Your task to perform on an android device: Set the phone to "Do not disturb". Image 0: 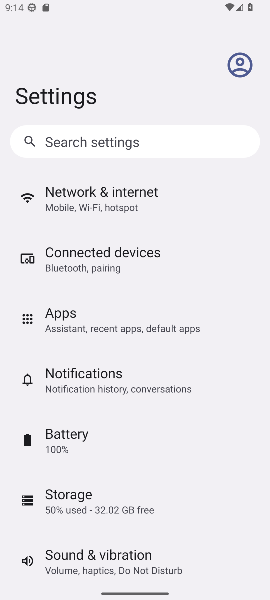
Step 0: press home button
Your task to perform on an android device: Set the phone to "Do not disturb". Image 1: 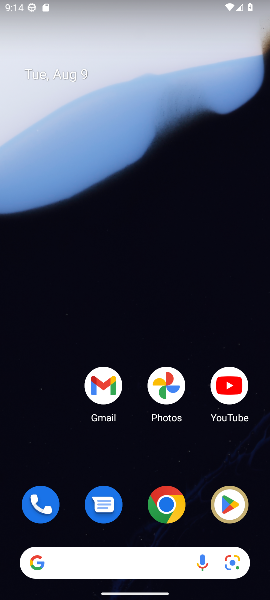
Step 1: drag from (133, 477) to (120, 82)
Your task to perform on an android device: Set the phone to "Do not disturb". Image 2: 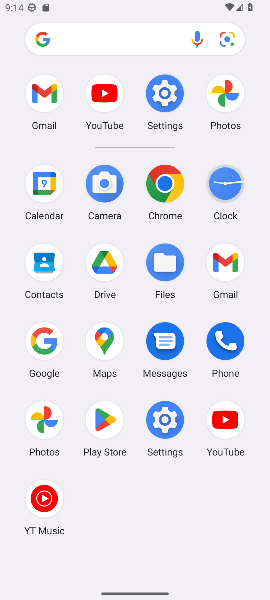
Step 2: click (164, 95)
Your task to perform on an android device: Set the phone to "Do not disturb". Image 3: 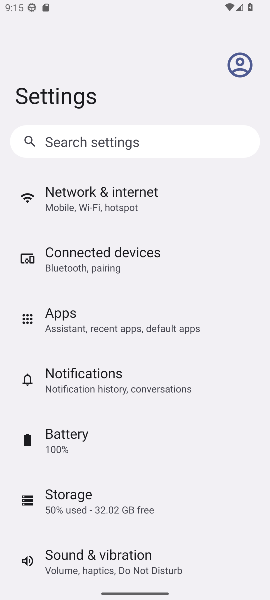
Step 3: click (107, 560)
Your task to perform on an android device: Set the phone to "Do not disturb". Image 4: 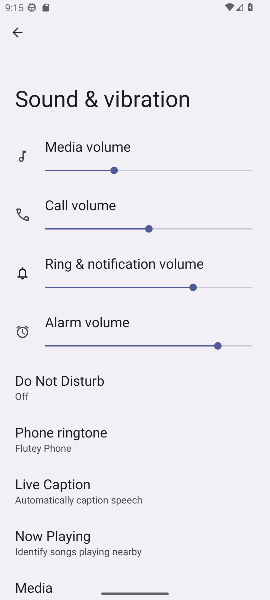
Step 4: click (62, 374)
Your task to perform on an android device: Set the phone to "Do not disturb". Image 5: 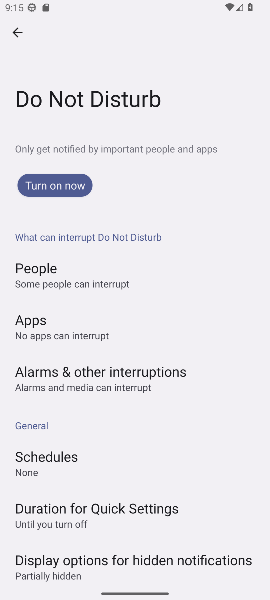
Step 5: click (48, 183)
Your task to perform on an android device: Set the phone to "Do not disturb". Image 6: 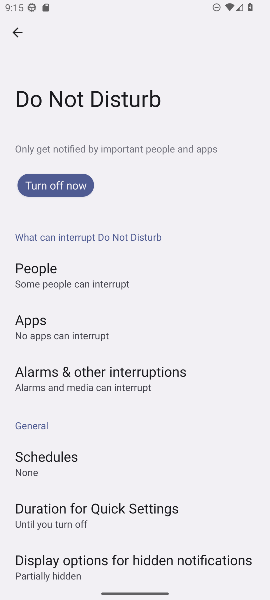
Step 6: task complete